Your task to perform on an android device: When is my next meeting? Image 0: 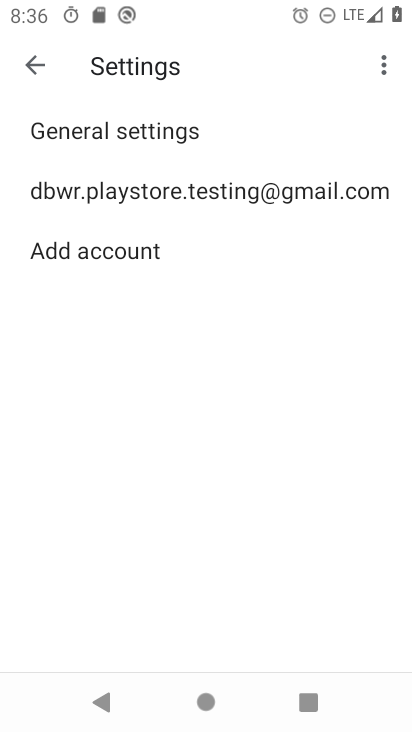
Step 0: press home button
Your task to perform on an android device: When is my next meeting? Image 1: 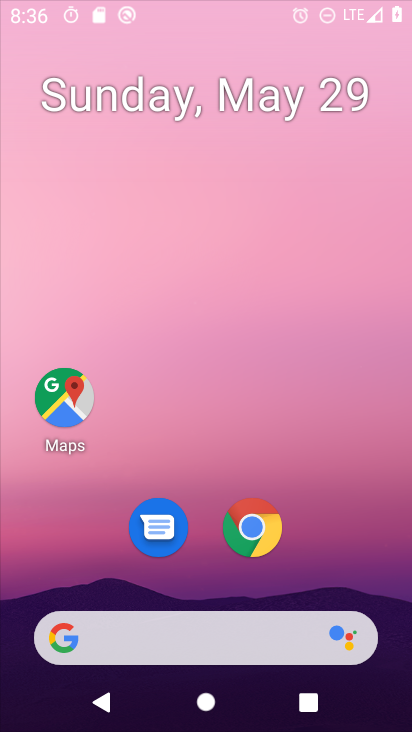
Step 1: drag from (404, 634) to (243, 0)
Your task to perform on an android device: When is my next meeting? Image 2: 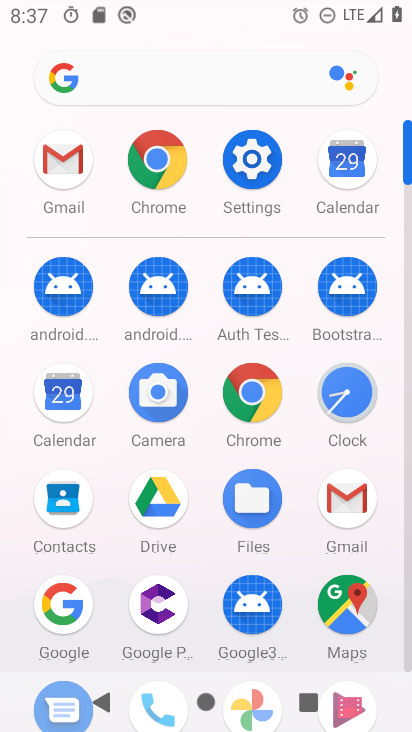
Step 2: click (357, 177)
Your task to perform on an android device: When is my next meeting? Image 3: 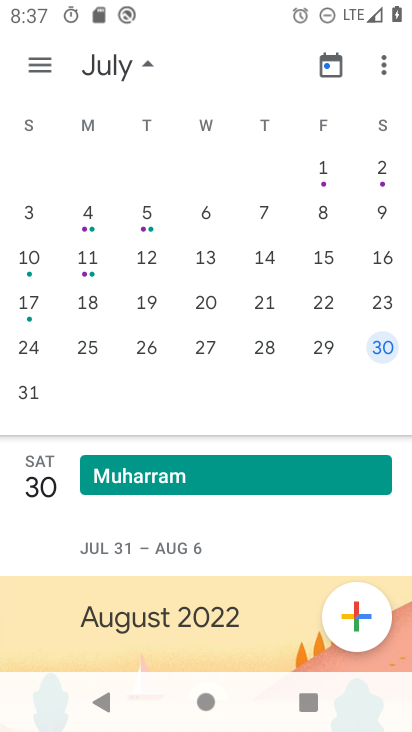
Step 3: task complete